Your task to perform on an android device: change the clock display to analog Image 0: 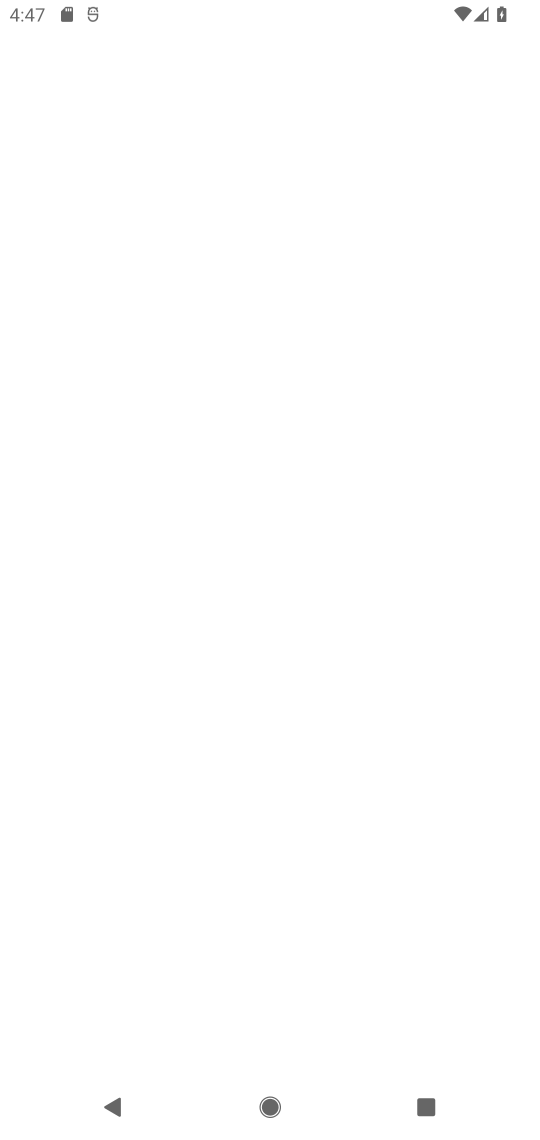
Step 0: press home button
Your task to perform on an android device: change the clock display to analog Image 1: 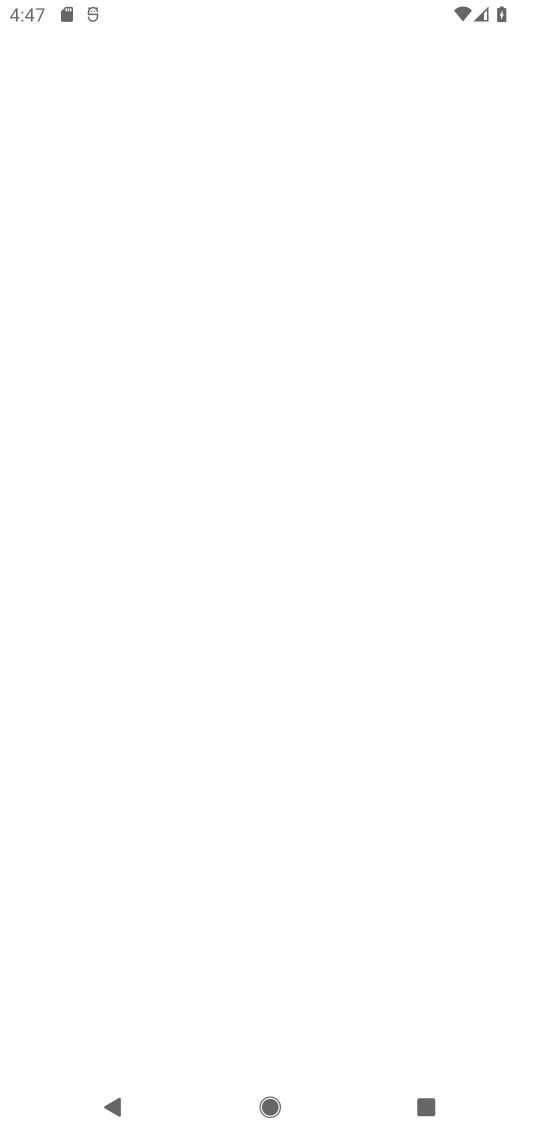
Step 1: press home button
Your task to perform on an android device: change the clock display to analog Image 2: 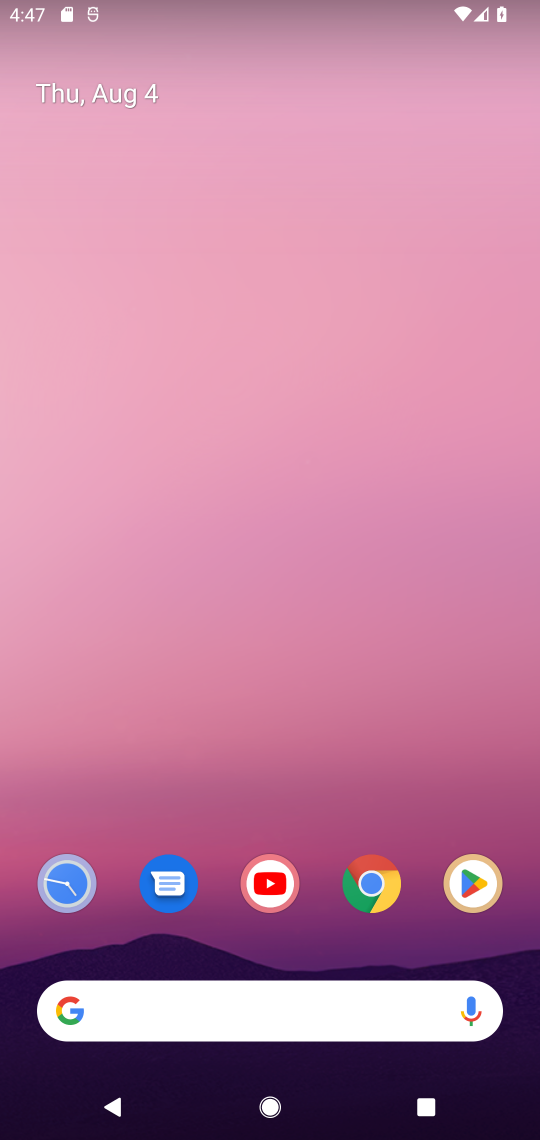
Step 2: click (73, 897)
Your task to perform on an android device: change the clock display to analog Image 3: 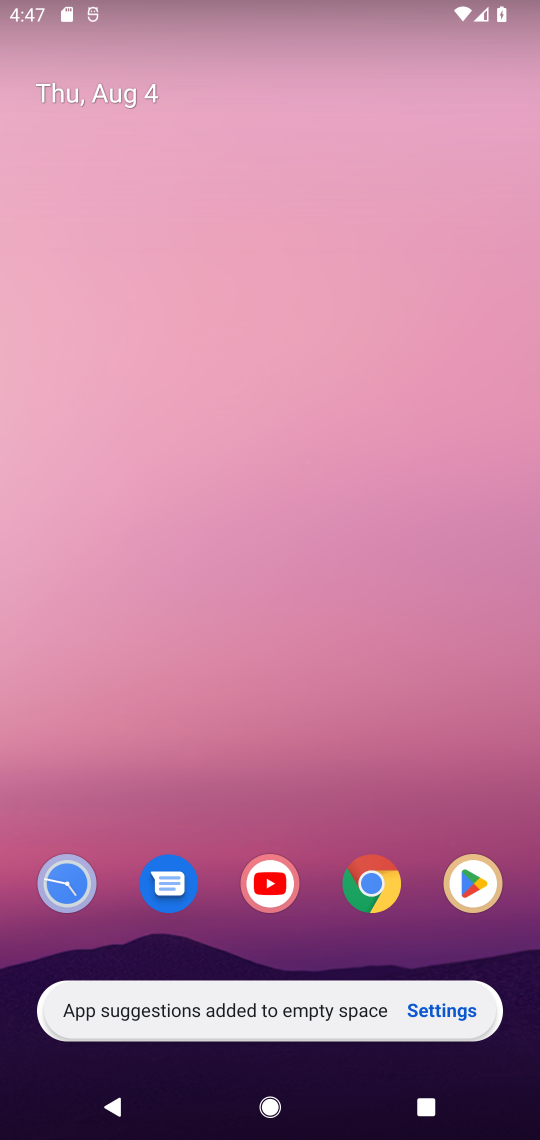
Step 3: click (73, 897)
Your task to perform on an android device: change the clock display to analog Image 4: 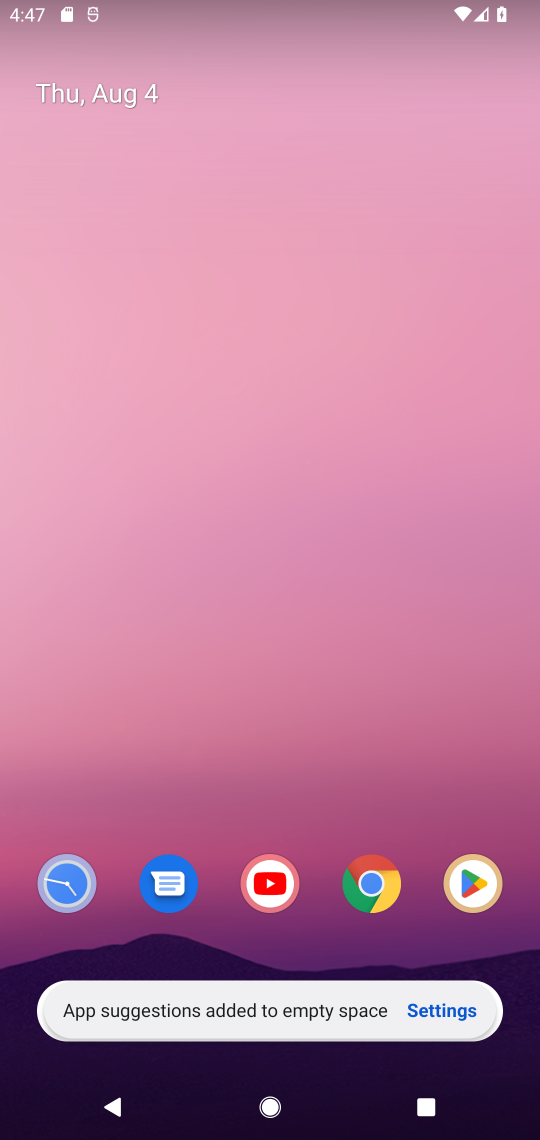
Step 4: click (73, 897)
Your task to perform on an android device: change the clock display to analog Image 5: 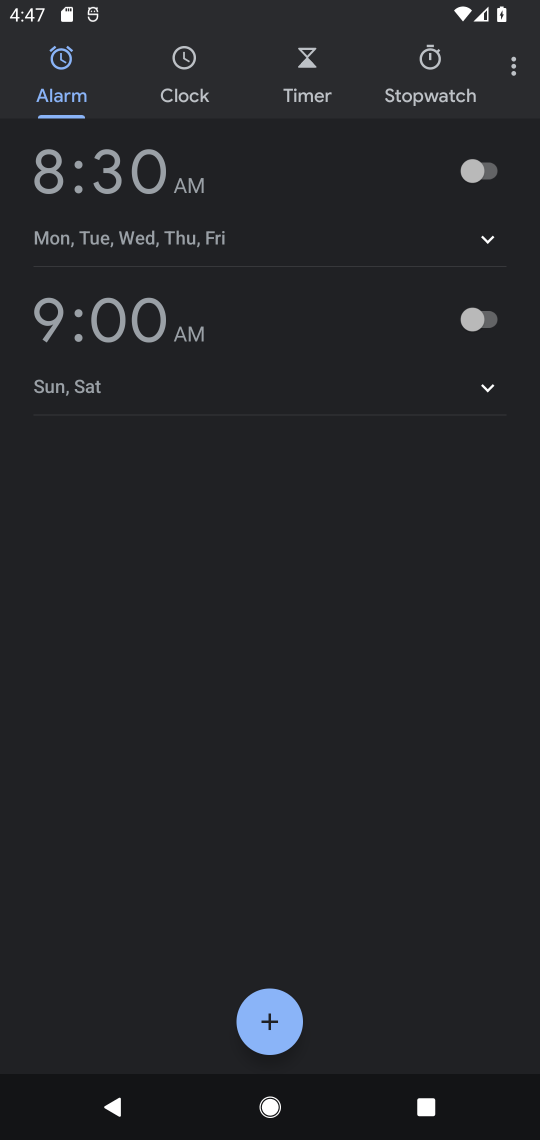
Step 5: click (512, 56)
Your task to perform on an android device: change the clock display to analog Image 6: 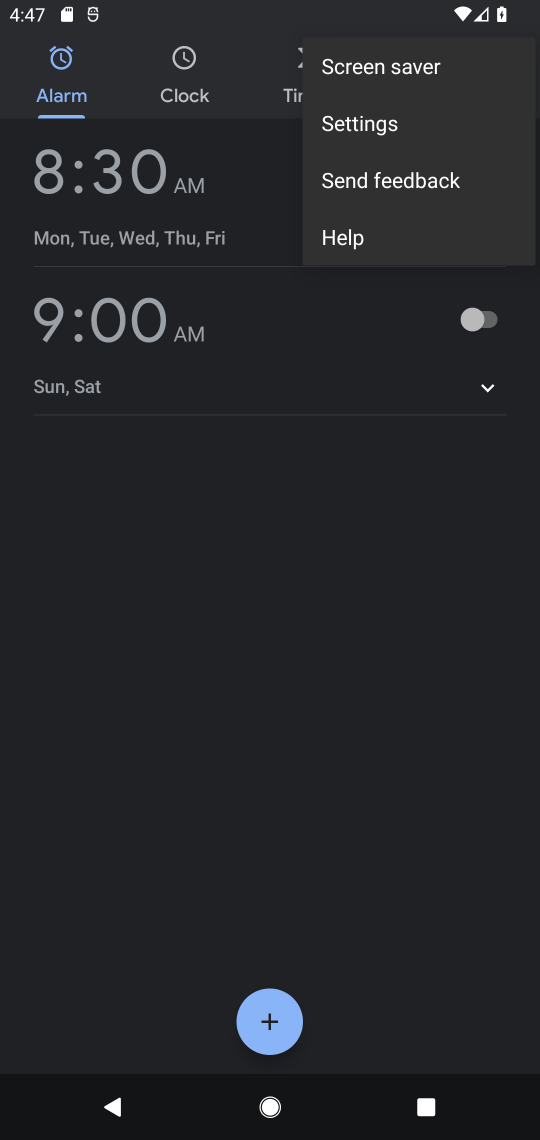
Step 6: click (435, 142)
Your task to perform on an android device: change the clock display to analog Image 7: 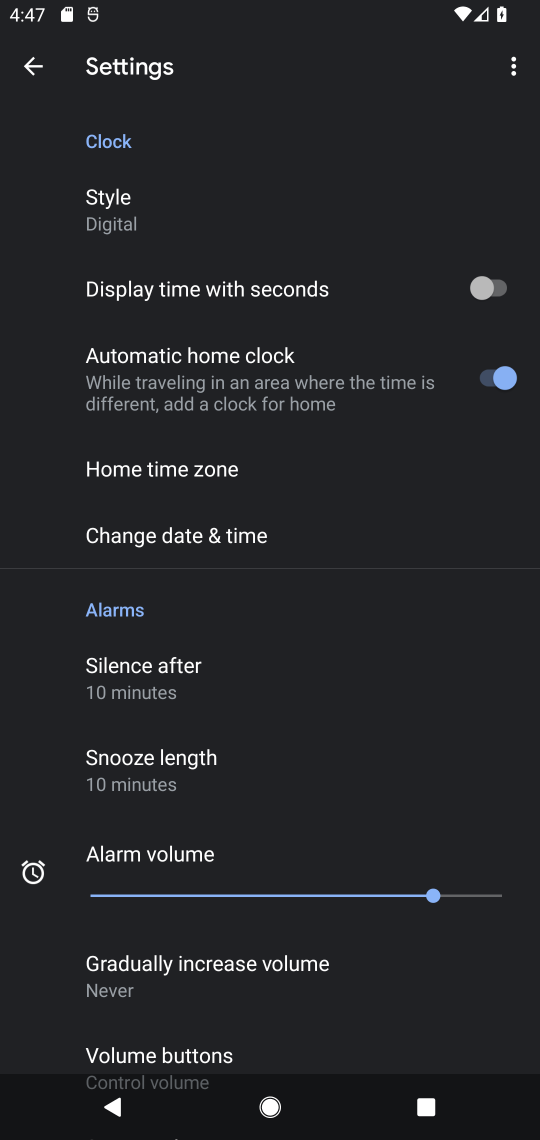
Step 7: click (291, 234)
Your task to perform on an android device: change the clock display to analog Image 8: 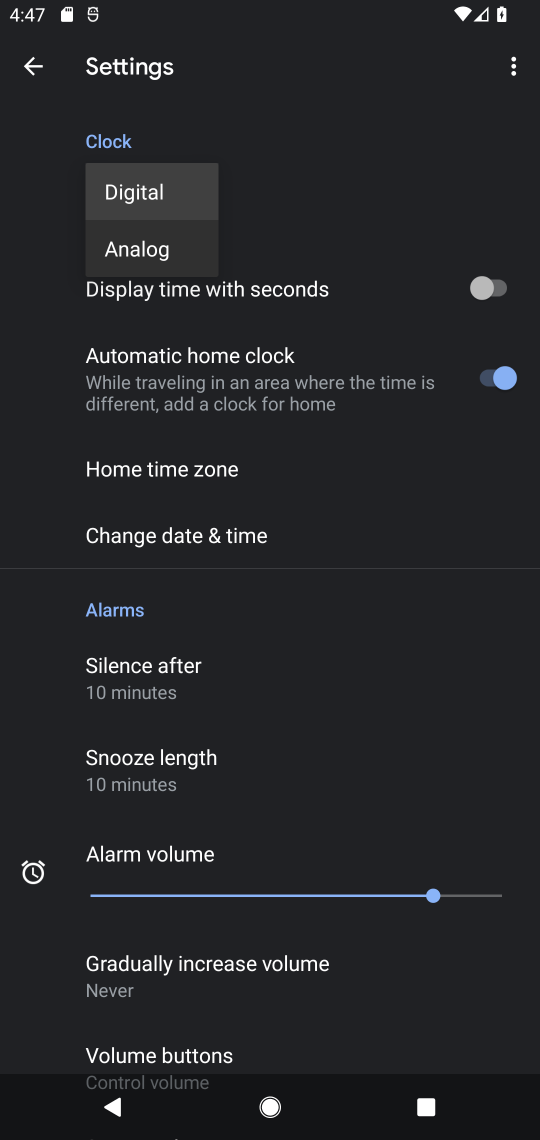
Step 8: click (143, 252)
Your task to perform on an android device: change the clock display to analog Image 9: 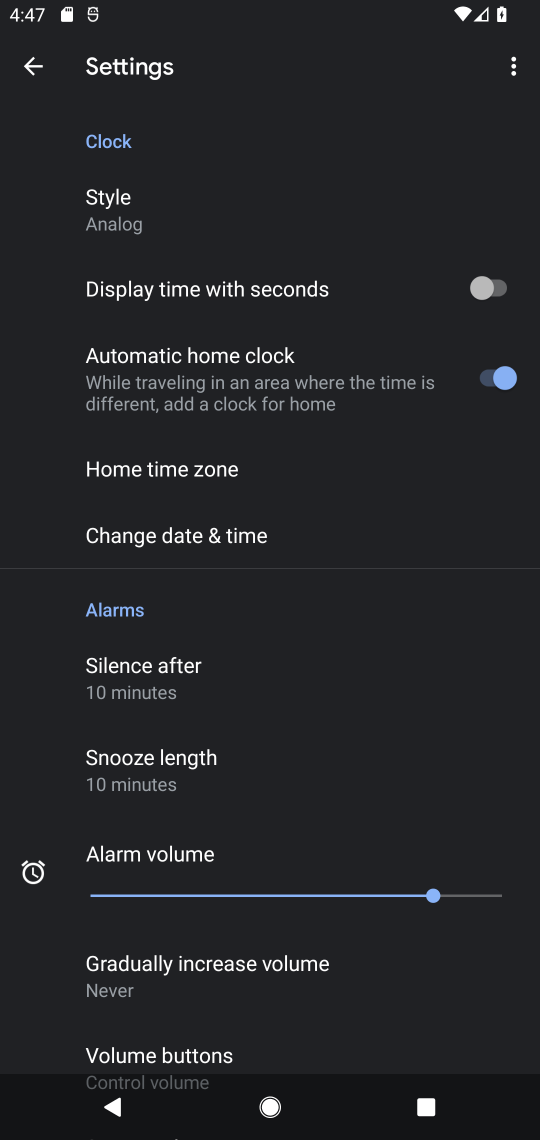
Step 9: task complete